Your task to perform on an android device: turn on the 12-hour format for clock Image 0: 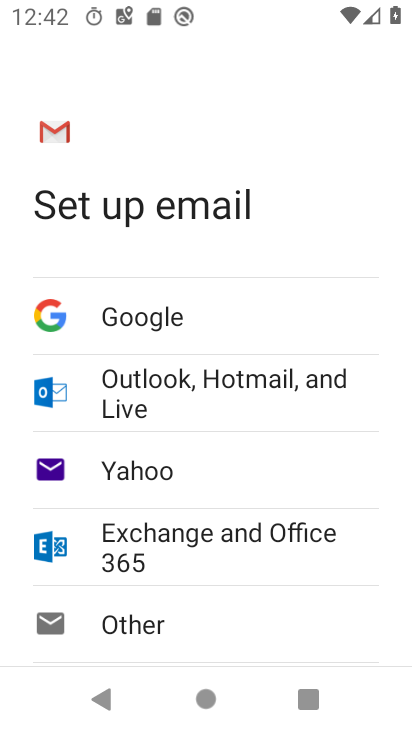
Step 0: press back button
Your task to perform on an android device: turn on the 12-hour format for clock Image 1: 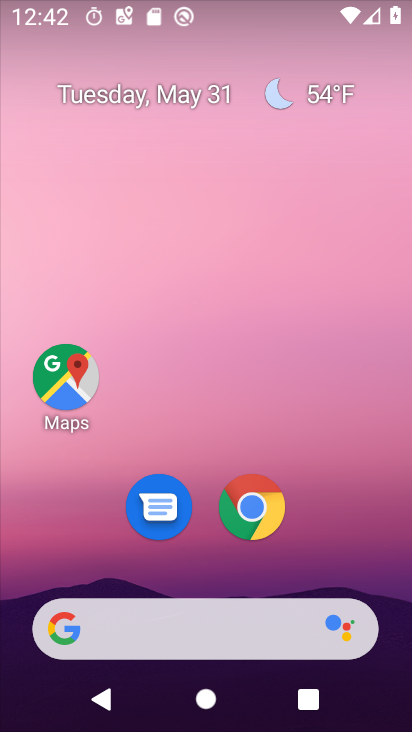
Step 1: drag from (247, 702) to (204, 199)
Your task to perform on an android device: turn on the 12-hour format for clock Image 2: 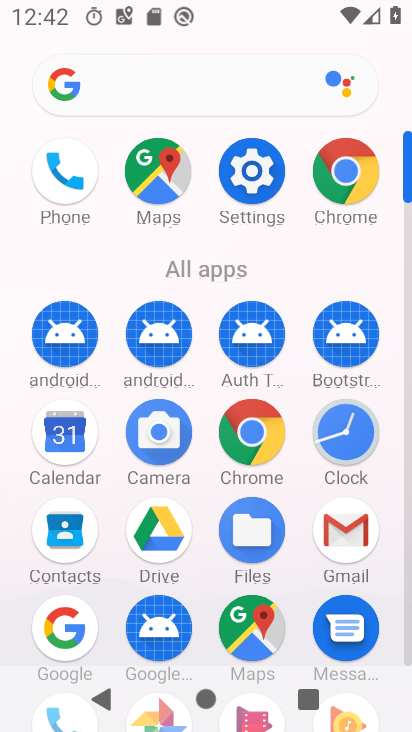
Step 2: click (357, 435)
Your task to perform on an android device: turn on the 12-hour format for clock Image 3: 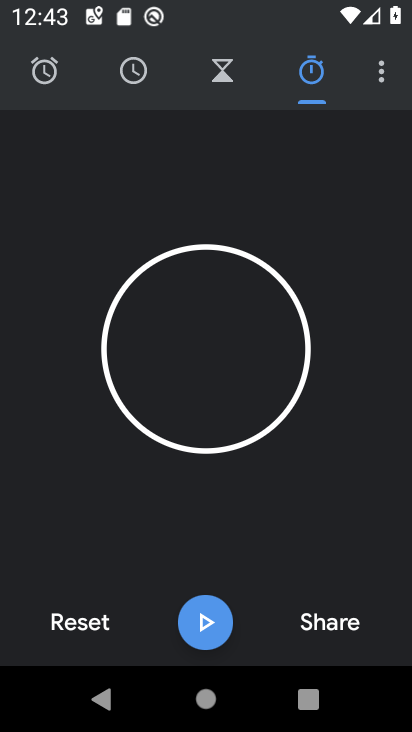
Step 3: click (379, 93)
Your task to perform on an android device: turn on the 12-hour format for clock Image 4: 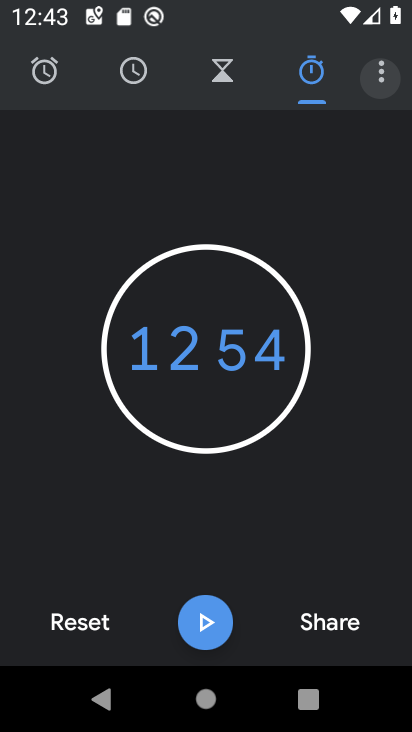
Step 4: click (379, 88)
Your task to perform on an android device: turn on the 12-hour format for clock Image 5: 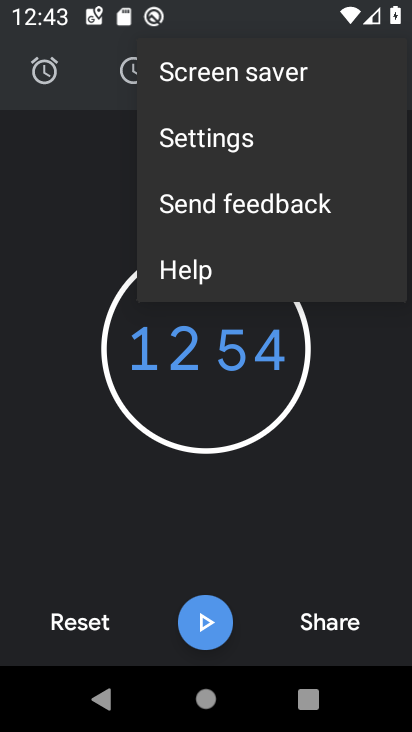
Step 5: click (195, 140)
Your task to perform on an android device: turn on the 12-hour format for clock Image 6: 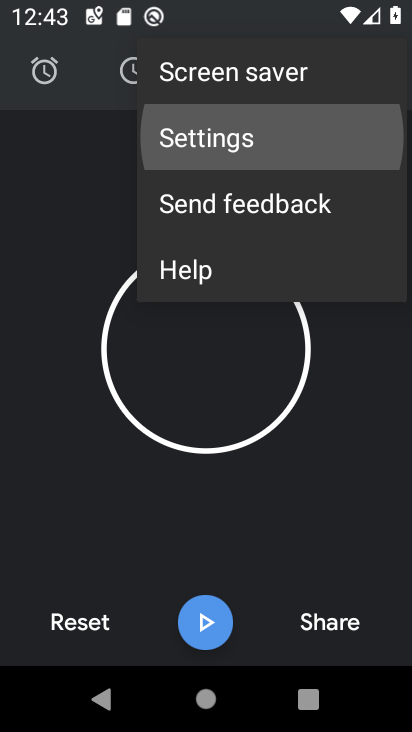
Step 6: click (182, 140)
Your task to perform on an android device: turn on the 12-hour format for clock Image 7: 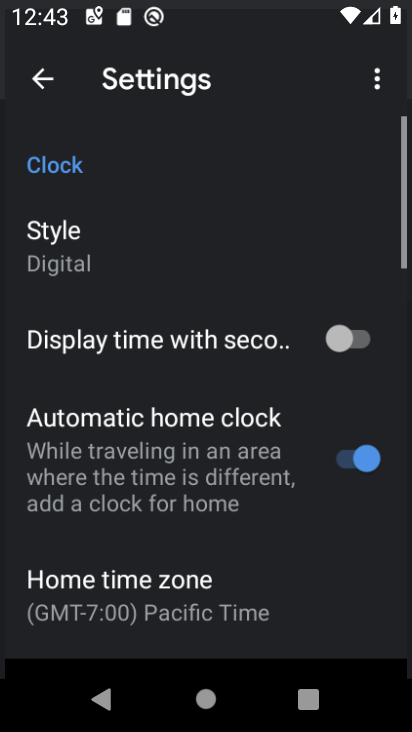
Step 7: click (190, 139)
Your task to perform on an android device: turn on the 12-hour format for clock Image 8: 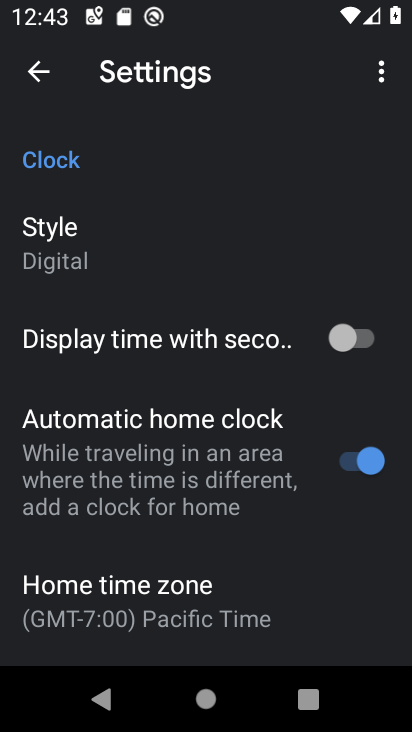
Step 8: drag from (153, 533) to (152, 256)
Your task to perform on an android device: turn on the 12-hour format for clock Image 9: 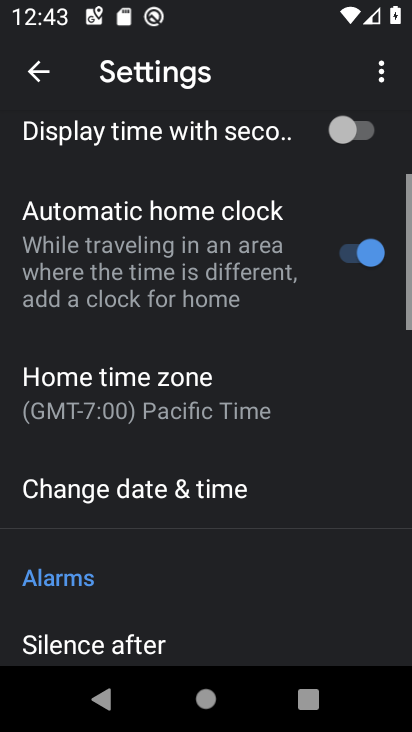
Step 9: drag from (200, 495) to (182, 212)
Your task to perform on an android device: turn on the 12-hour format for clock Image 10: 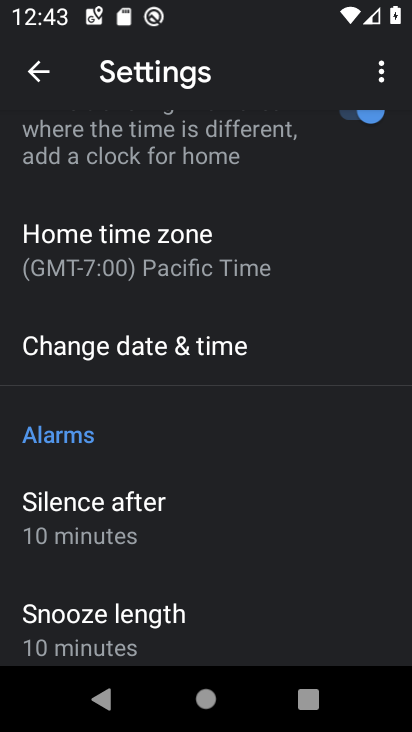
Step 10: click (158, 345)
Your task to perform on an android device: turn on the 12-hour format for clock Image 11: 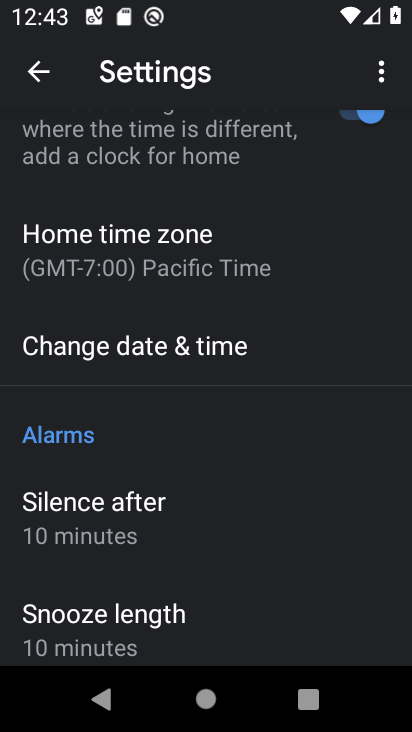
Step 11: click (158, 345)
Your task to perform on an android device: turn on the 12-hour format for clock Image 12: 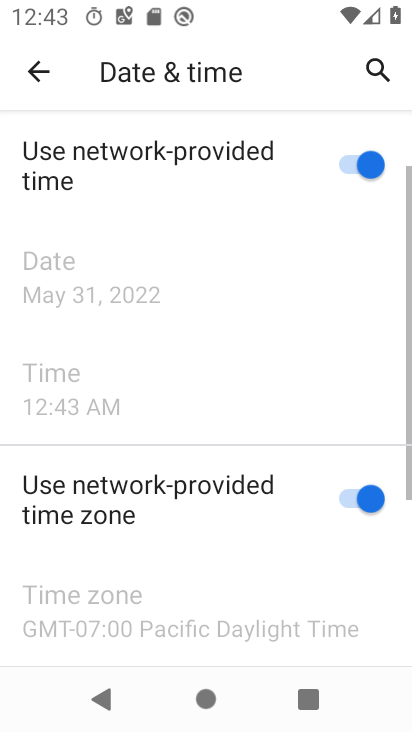
Step 12: drag from (191, 550) to (269, 224)
Your task to perform on an android device: turn on the 12-hour format for clock Image 13: 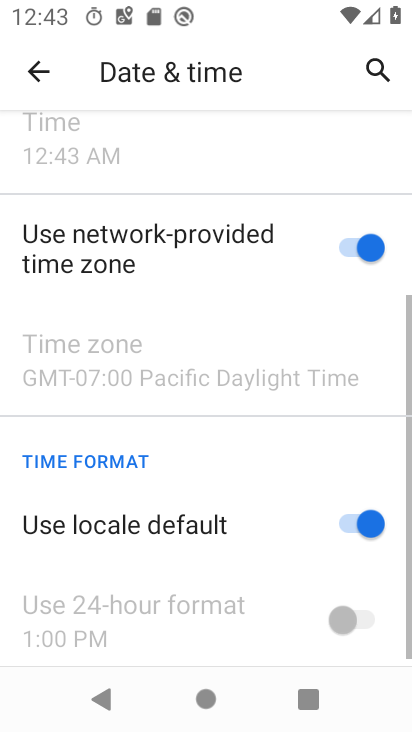
Step 13: drag from (266, 456) to (248, 188)
Your task to perform on an android device: turn on the 12-hour format for clock Image 14: 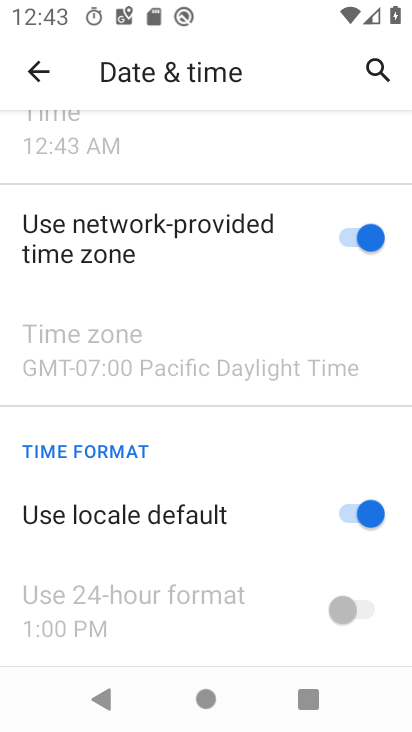
Step 14: click (365, 514)
Your task to perform on an android device: turn on the 12-hour format for clock Image 15: 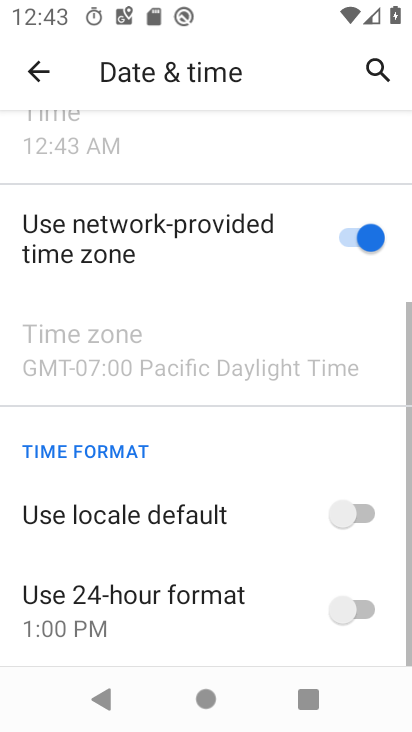
Step 15: click (350, 608)
Your task to perform on an android device: turn on the 12-hour format for clock Image 16: 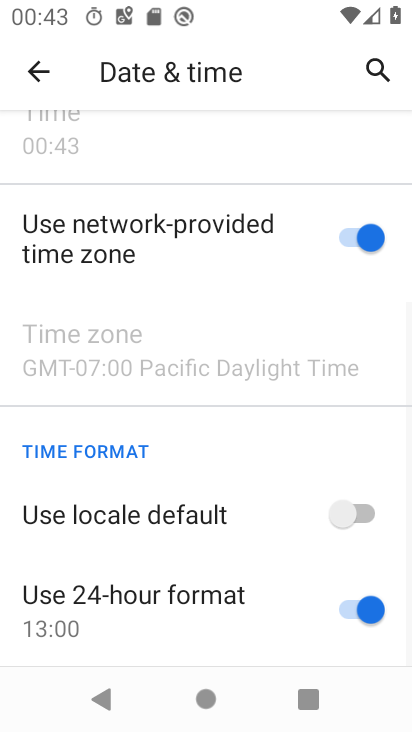
Step 16: task complete